Your task to perform on an android device: install app "Flipkart Online Shopping App" Image 0: 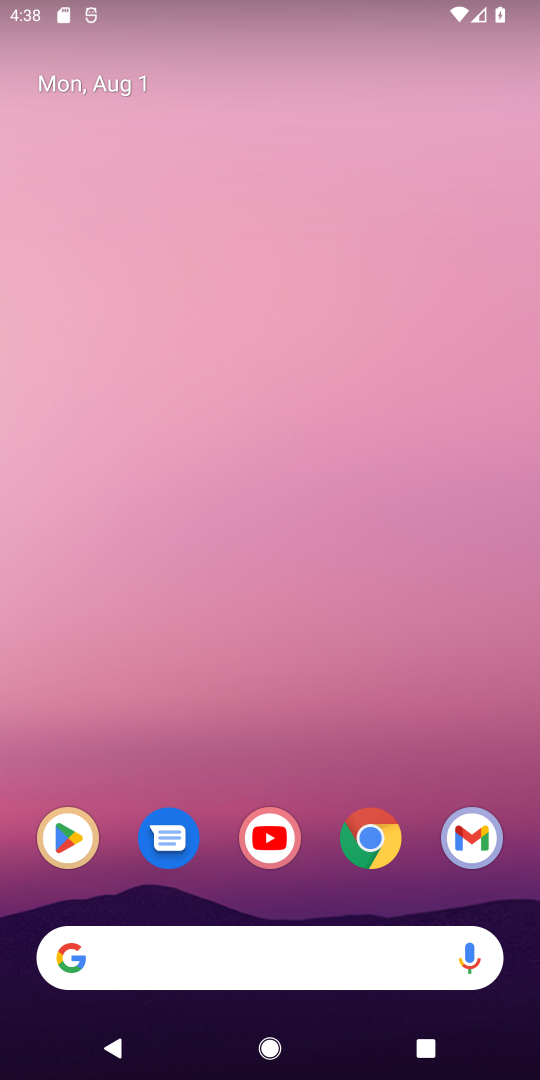
Step 0: click (52, 853)
Your task to perform on an android device: install app "Flipkart Online Shopping App" Image 1: 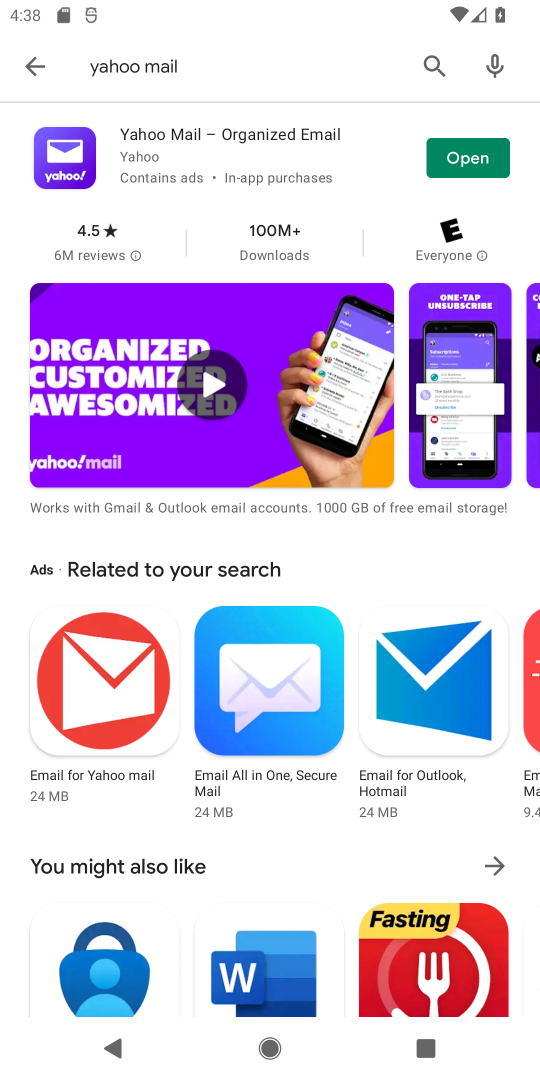
Step 1: click (435, 71)
Your task to perform on an android device: install app "Flipkart Online Shopping App" Image 2: 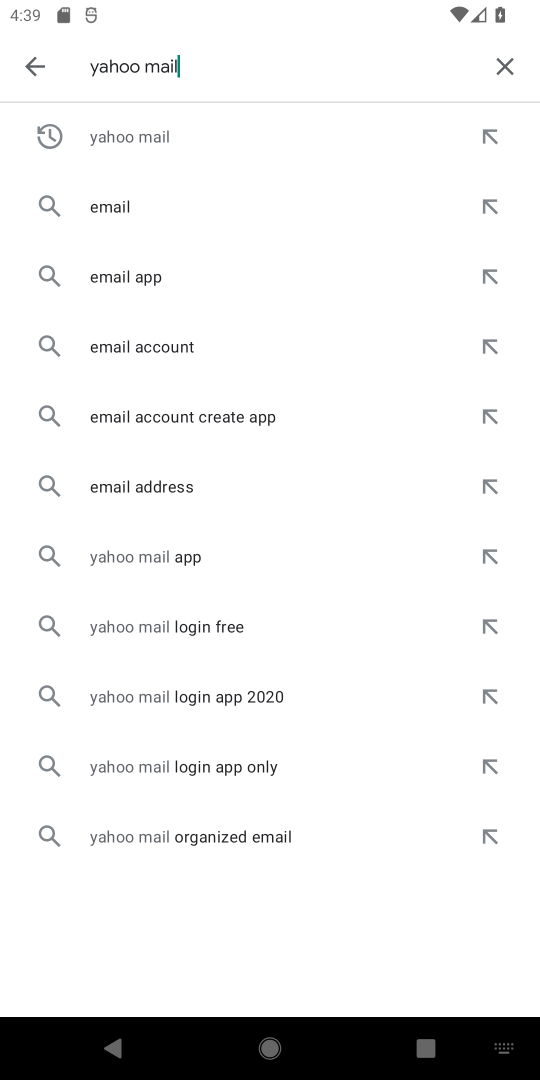
Step 2: click (489, 66)
Your task to perform on an android device: install app "Flipkart Online Shopping App" Image 3: 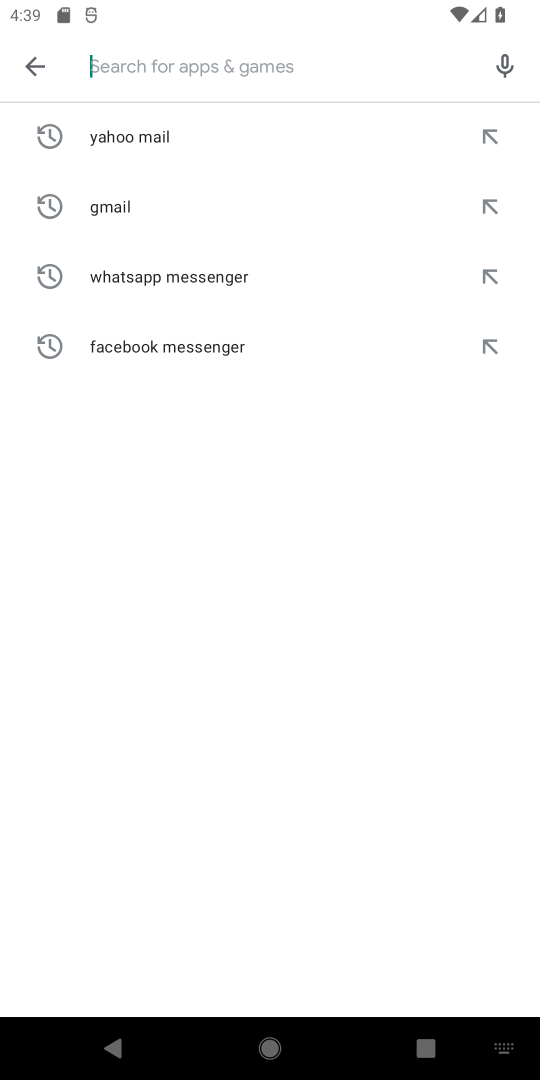
Step 3: type "Flipkart Online Shopping App"
Your task to perform on an android device: install app "Flipkart Online Shopping App" Image 4: 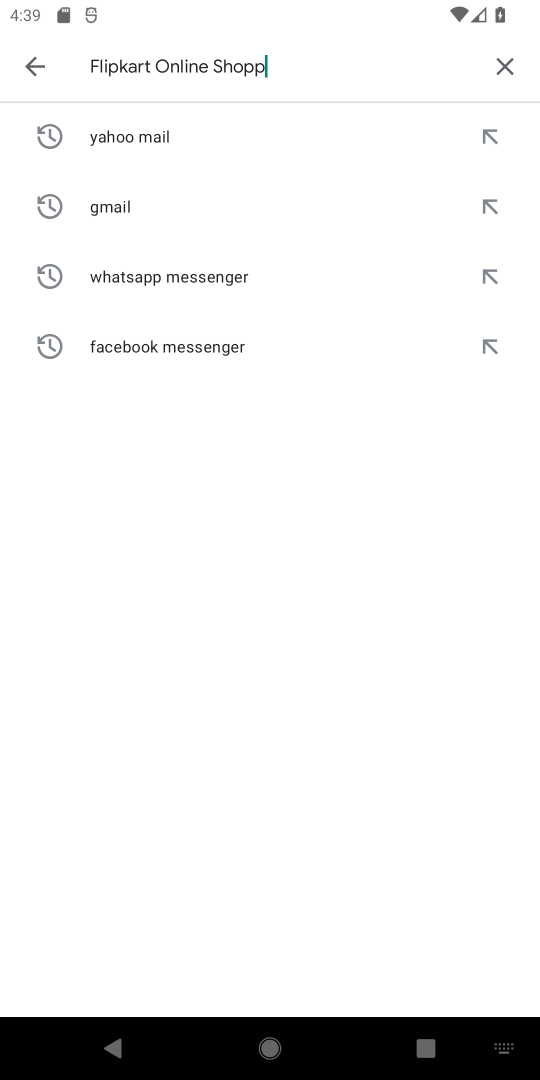
Step 4: type ""
Your task to perform on an android device: install app "Flipkart Online Shopping App" Image 5: 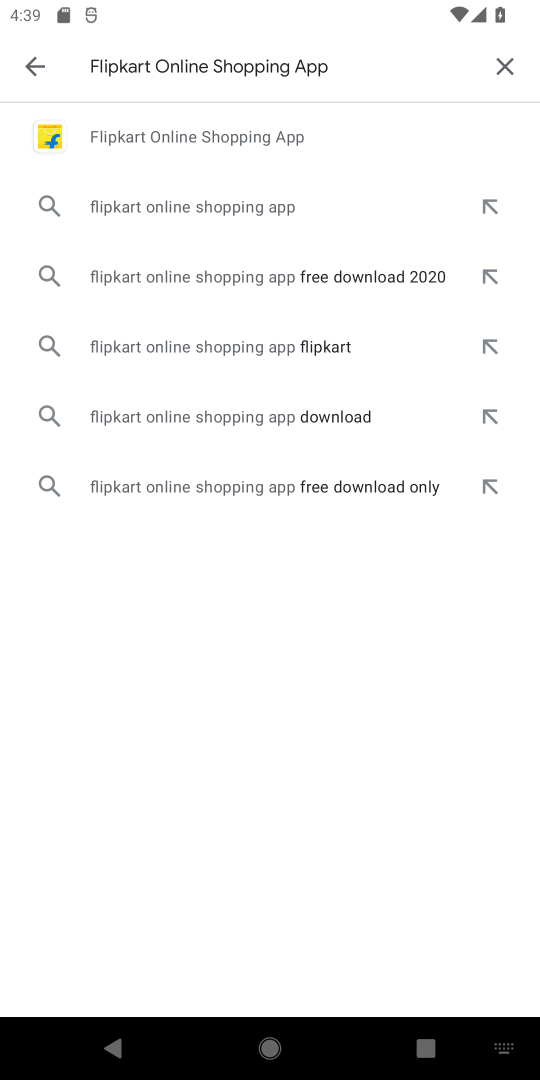
Step 5: click (279, 136)
Your task to perform on an android device: install app "Flipkart Online Shopping App" Image 6: 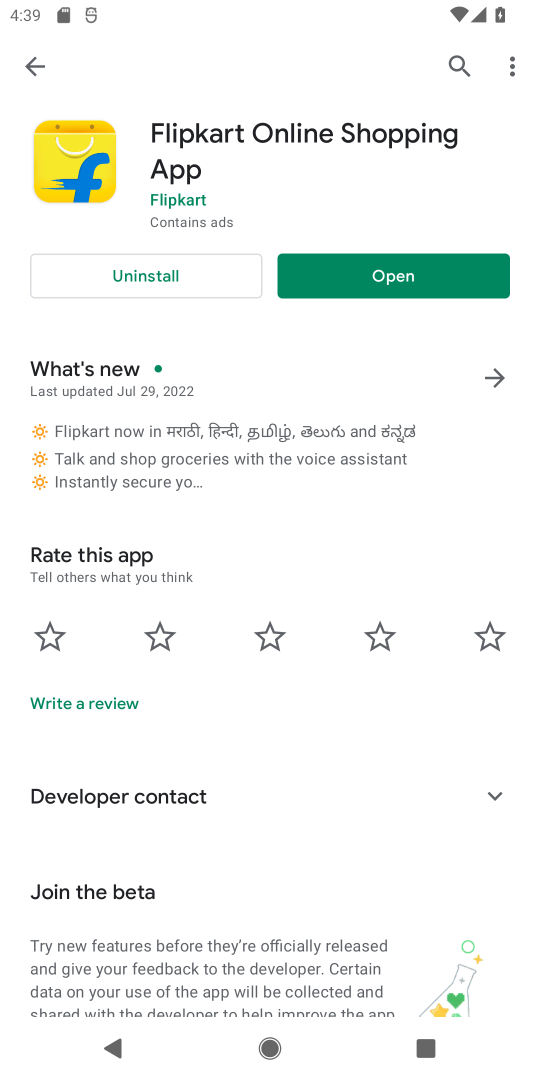
Step 6: task complete